Your task to perform on an android device: Show me popular games on the Play Store Image 0: 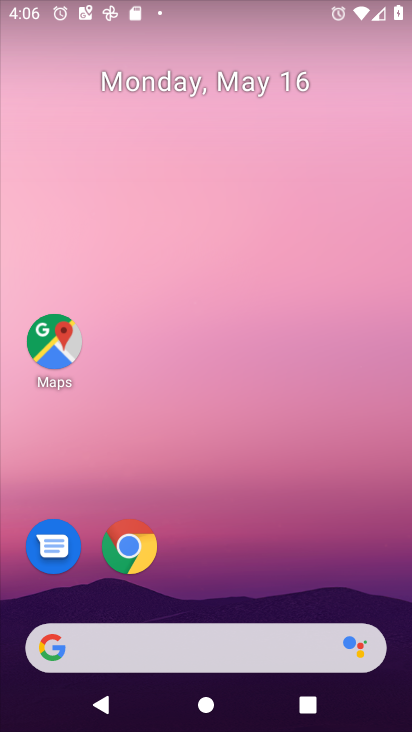
Step 0: drag from (357, 583) to (352, 147)
Your task to perform on an android device: Show me popular games on the Play Store Image 1: 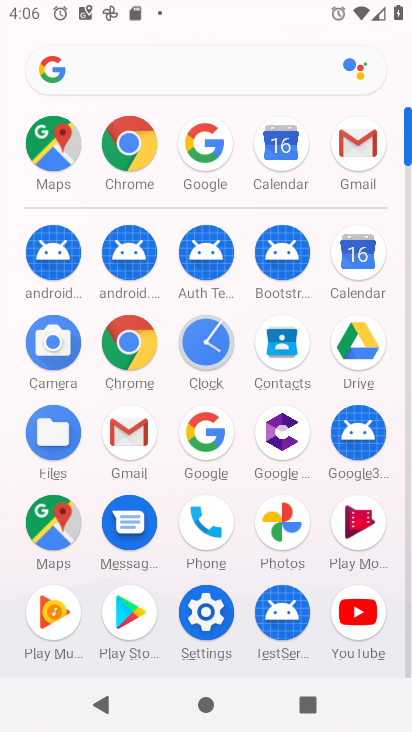
Step 1: click (139, 630)
Your task to perform on an android device: Show me popular games on the Play Store Image 2: 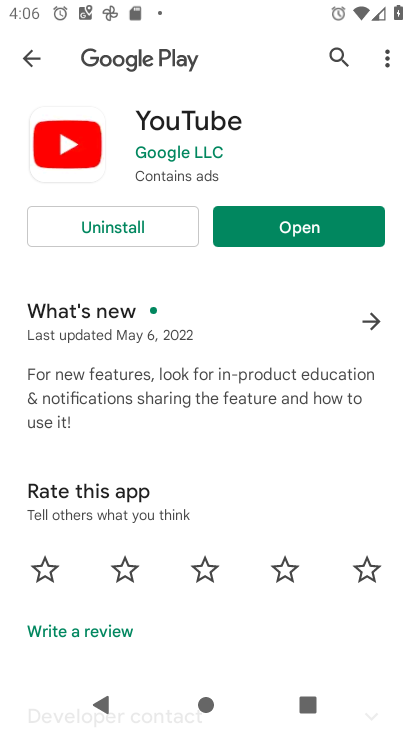
Step 2: click (29, 54)
Your task to perform on an android device: Show me popular games on the Play Store Image 3: 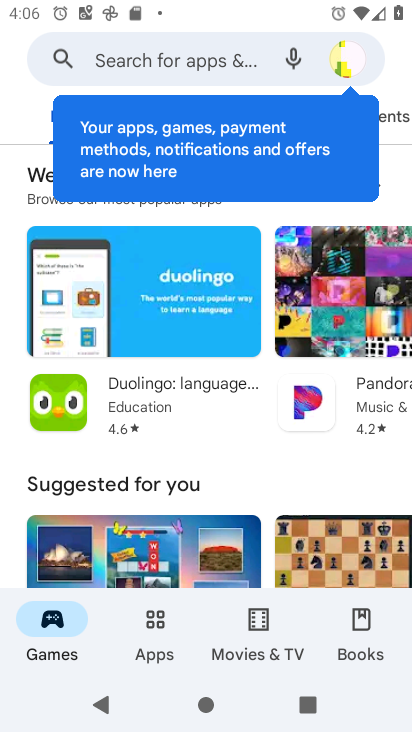
Step 3: task complete